Your task to perform on an android device: turn notification dots off Image 0: 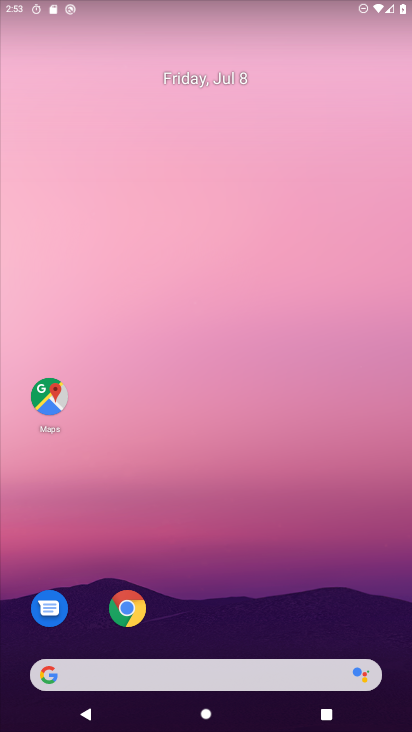
Step 0: click (246, 715)
Your task to perform on an android device: turn notification dots off Image 1: 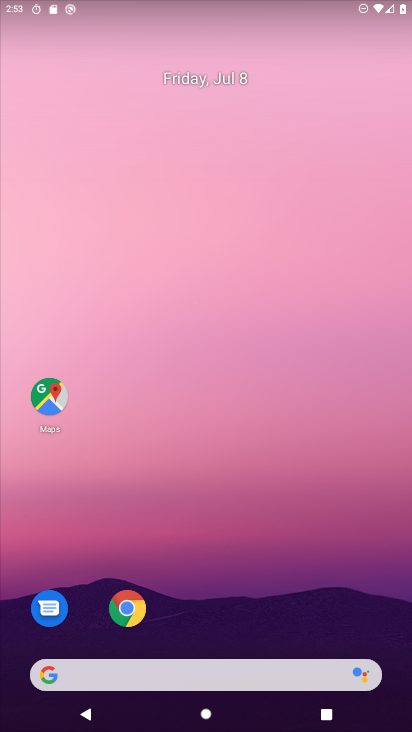
Step 1: click (222, 134)
Your task to perform on an android device: turn notification dots off Image 2: 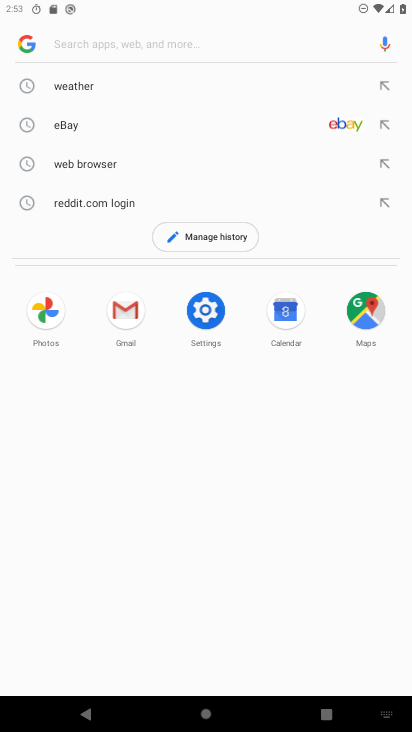
Step 2: press home button
Your task to perform on an android device: turn notification dots off Image 3: 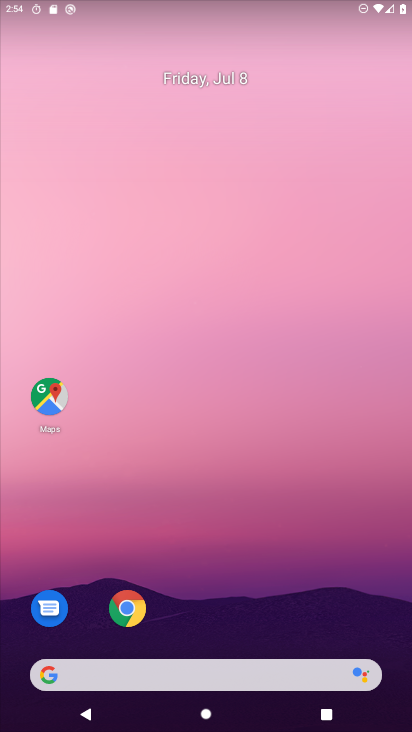
Step 3: drag from (245, 710) to (237, 515)
Your task to perform on an android device: turn notification dots off Image 4: 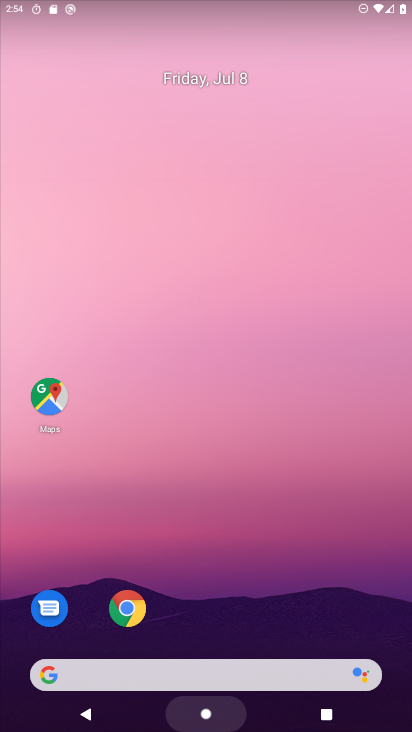
Step 4: drag from (215, 121) to (211, 78)
Your task to perform on an android device: turn notification dots off Image 5: 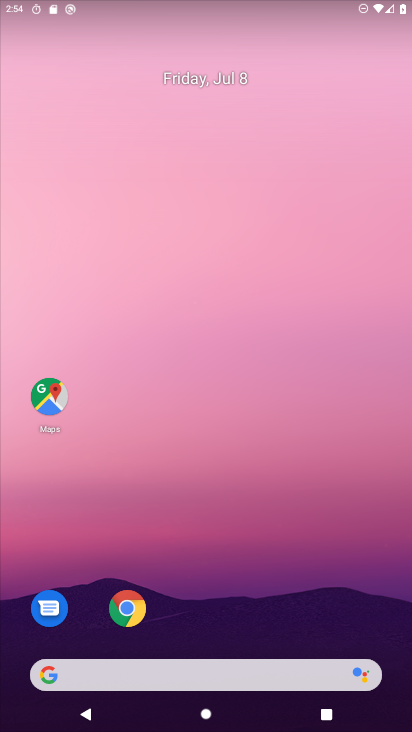
Step 5: drag from (262, 723) to (248, 591)
Your task to perform on an android device: turn notification dots off Image 6: 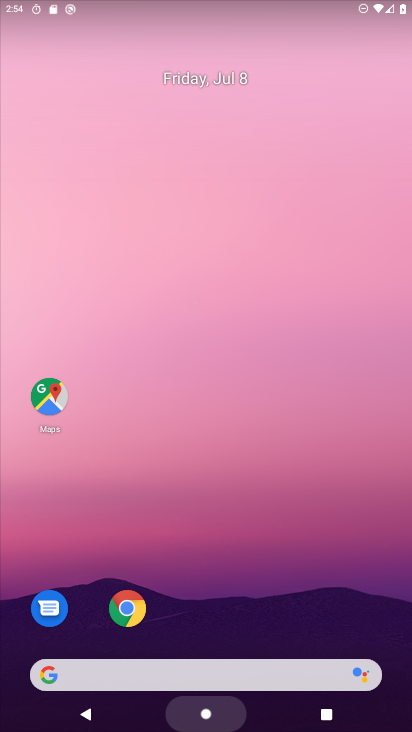
Step 6: drag from (194, 4) to (220, 60)
Your task to perform on an android device: turn notification dots off Image 7: 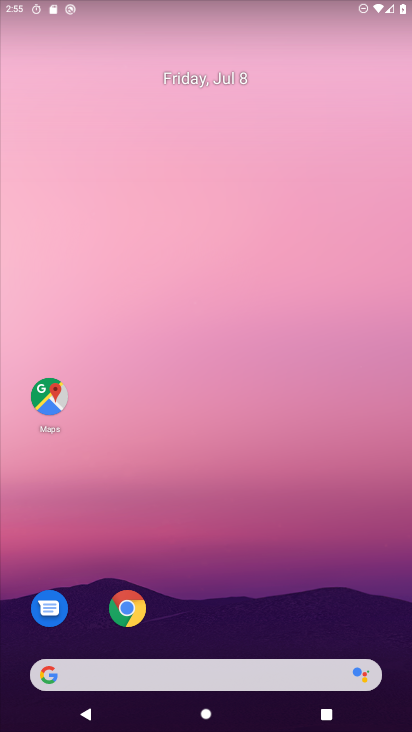
Step 7: drag from (247, 709) to (247, 41)
Your task to perform on an android device: turn notification dots off Image 8: 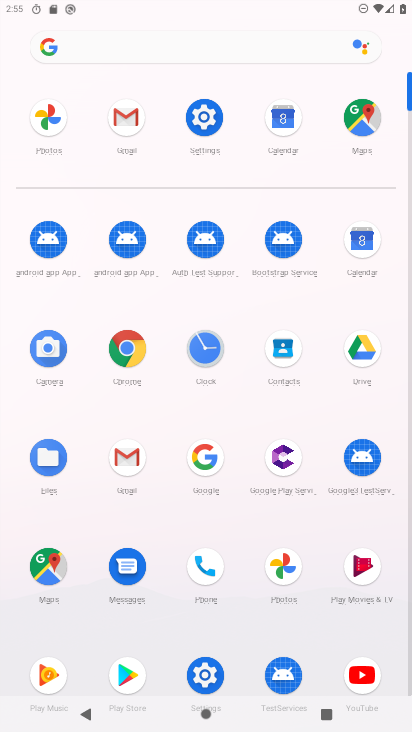
Step 8: click (201, 111)
Your task to perform on an android device: turn notification dots off Image 9: 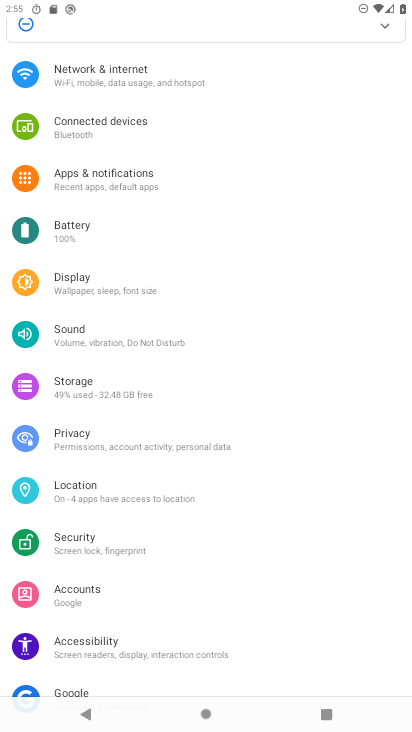
Step 9: click (100, 174)
Your task to perform on an android device: turn notification dots off Image 10: 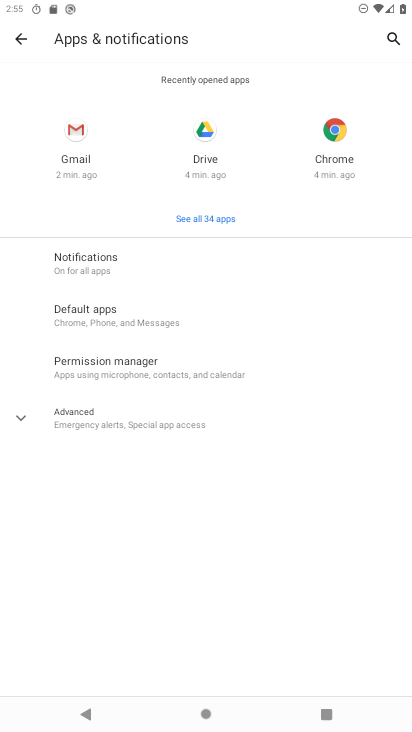
Step 10: click (90, 273)
Your task to perform on an android device: turn notification dots off Image 11: 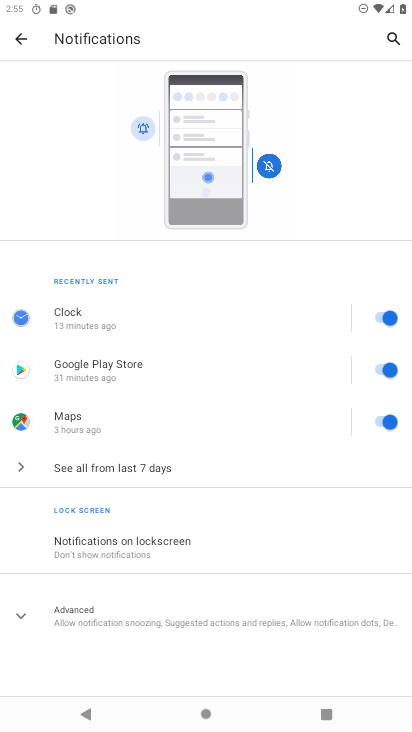
Step 11: click (271, 621)
Your task to perform on an android device: turn notification dots off Image 12: 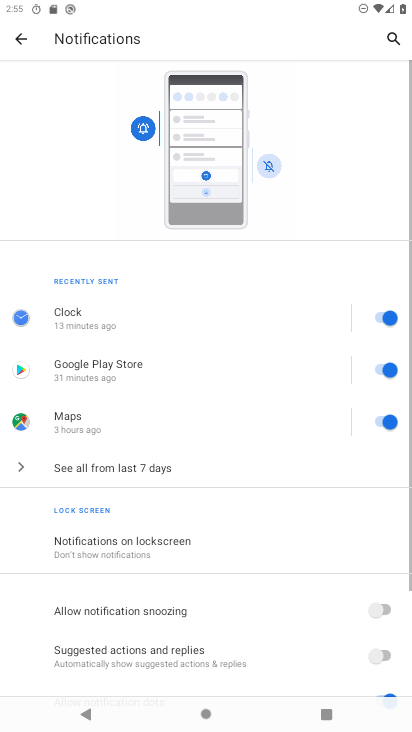
Step 12: drag from (296, 664) to (283, 362)
Your task to perform on an android device: turn notification dots off Image 13: 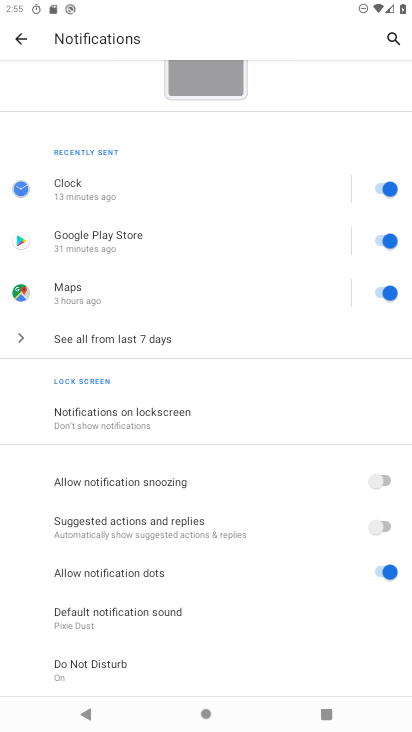
Step 13: click (387, 566)
Your task to perform on an android device: turn notification dots off Image 14: 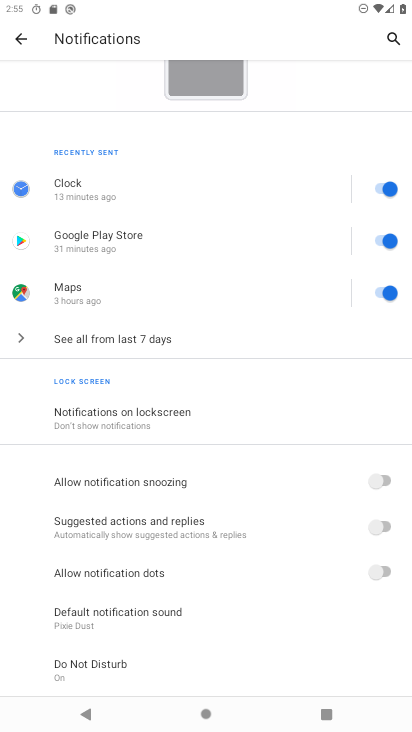
Step 14: task complete